Your task to perform on an android device: turn pop-ups on in chrome Image 0: 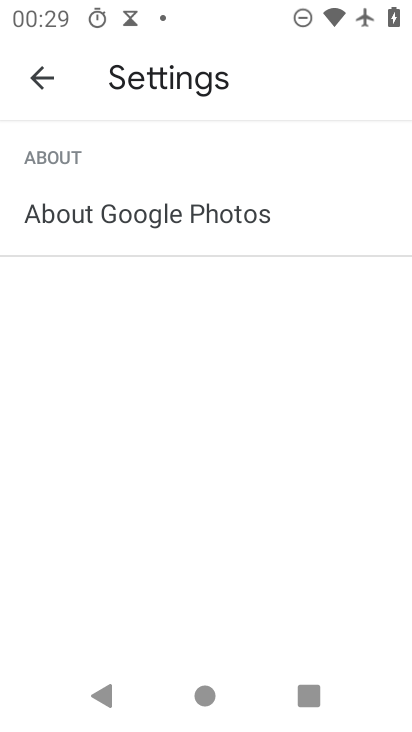
Step 0: press back button
Your task to perform on an android device: turn pop-ups on in chrome Image 1: 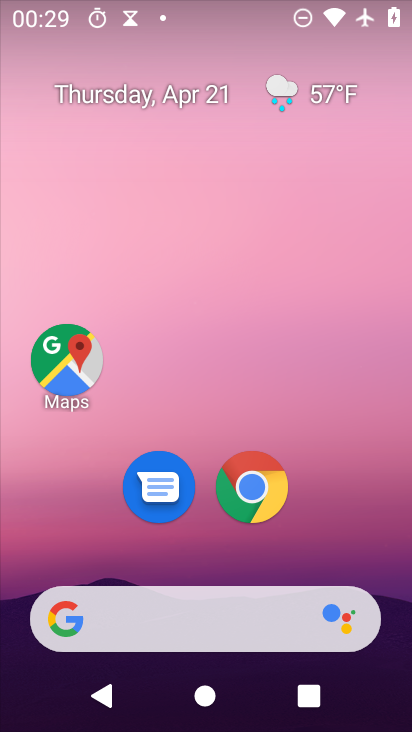
Step 1: drag from (341, 550) to (197, 2)
Your task to perform on an android device: turn pop-ups on in chrome Image 2: 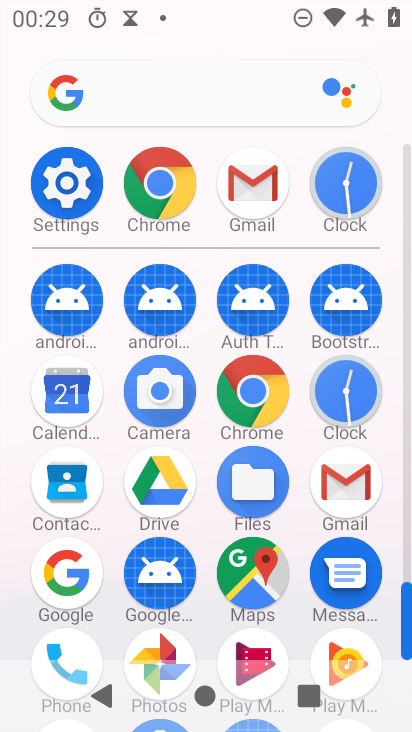
Step 2: click (157, 181)
Your task to perform on an android device: turn pop-ups on in chrome Image 3: 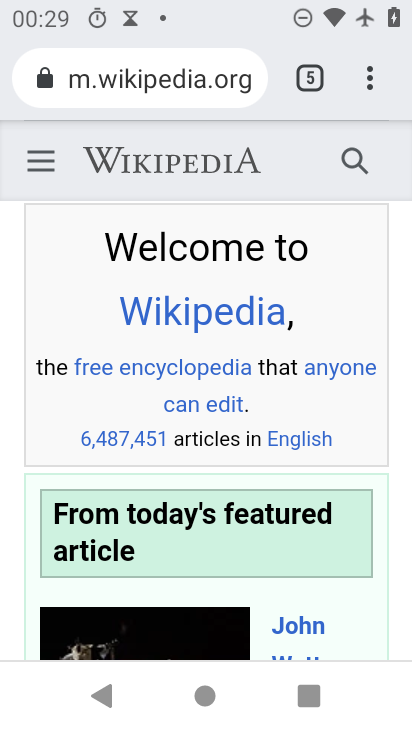
Step 3: click (168, 82)
Your task to perform on an android device: turn pop-ups on in chrome Image 4: 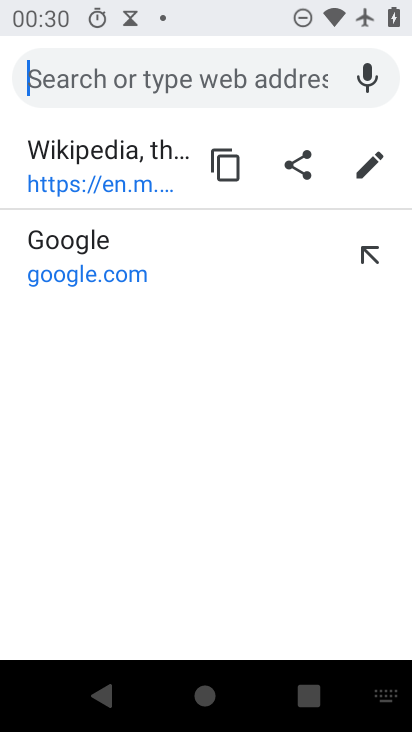
Step 4: press back button
Your task to perform on an android device: turn pop-ups on in chrome Image 5: 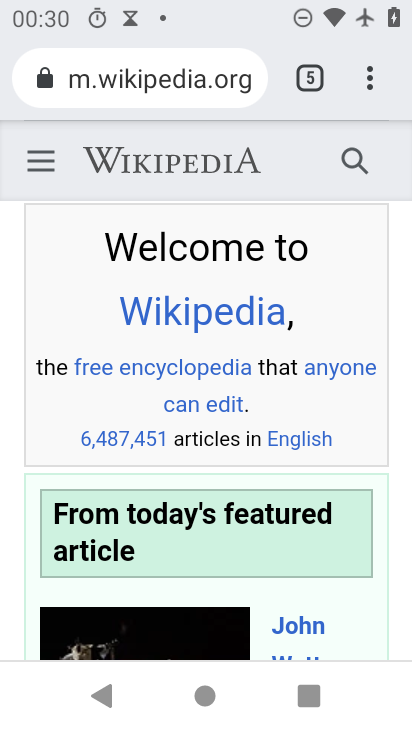
Step 5: drag from (374, 65) to (206, 543)
Your task to perform on an android device: turn pop-ups on in chrome Image 6: 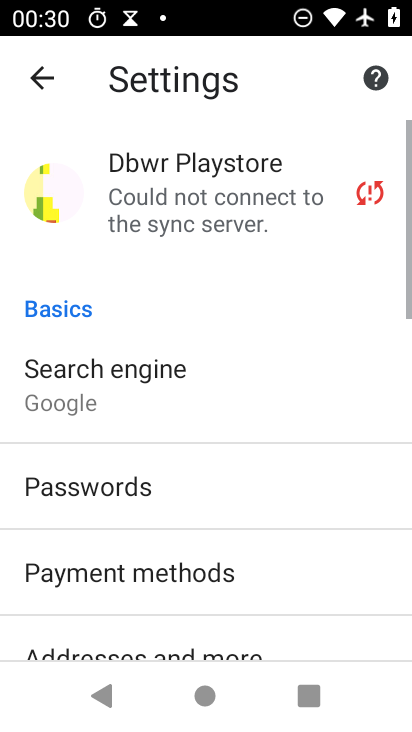
Step 6: drag from (271, 548) to (234, 159)
Your task to perform on an android device: turn pop-ups on in chrome Image 7: 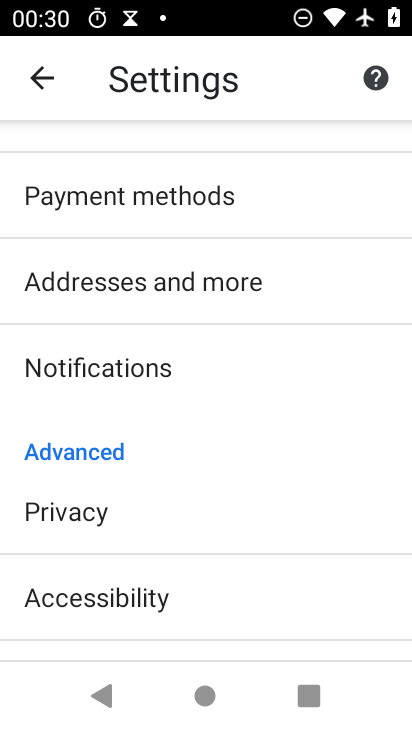
Step 7: drag from (238, 497) to (229, 178)
Your task to perform on an android device: turn pop-ups on in chrome Image 8: 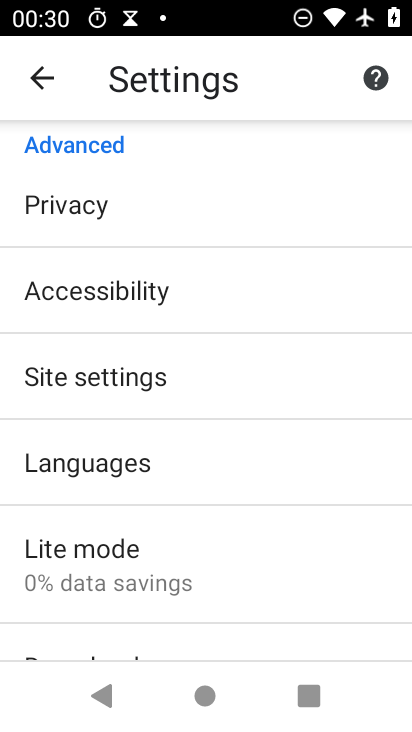
Step 8: click (158, 374)
Your task to perform on an android device: turn pop-ups on in chrome Image 9: 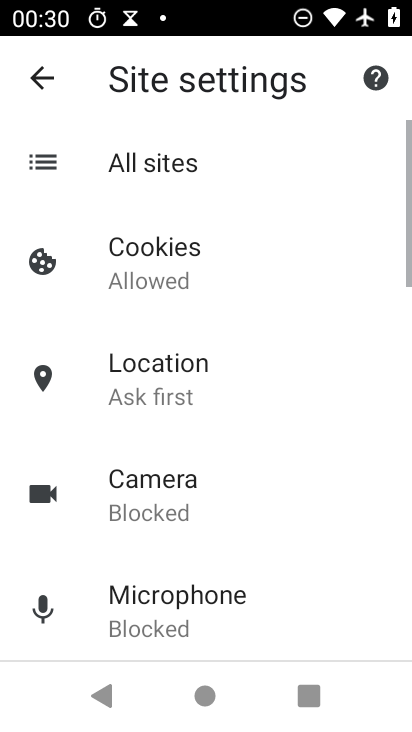
Step 9: drag from (243, 549) to (235, 133)
Your task to perform on an android device: turn pop-ups on in chrome Image 10: 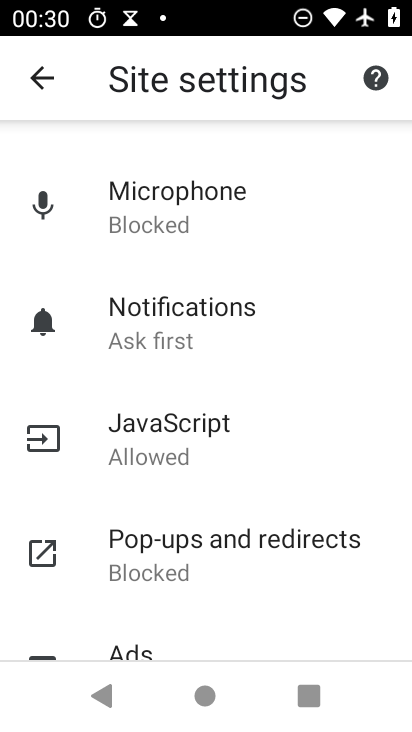
Step 10: click (239, 541)
Your task to perform on an android device: turn pop-ups on in chrome Image 11: 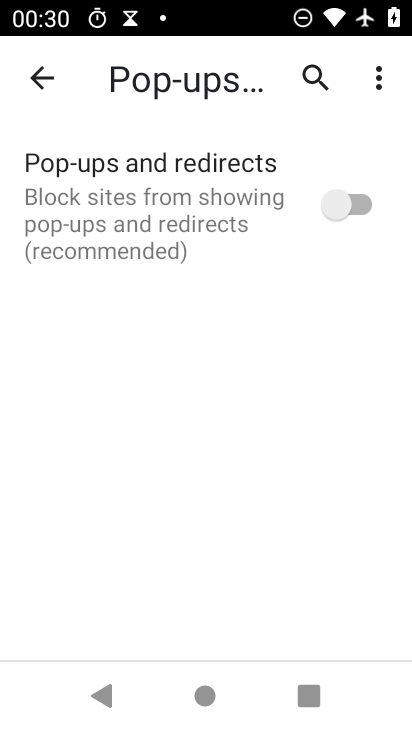
Step 11: click (342, 197)
Your task to perform on an android device: turn pop-ups on in chrome Image 12: 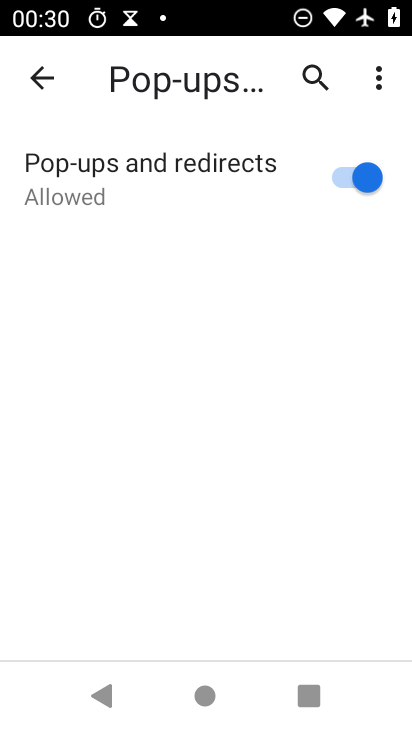
Step 12: task complete